Your task to perform on an android device: Open eBay Image 0: 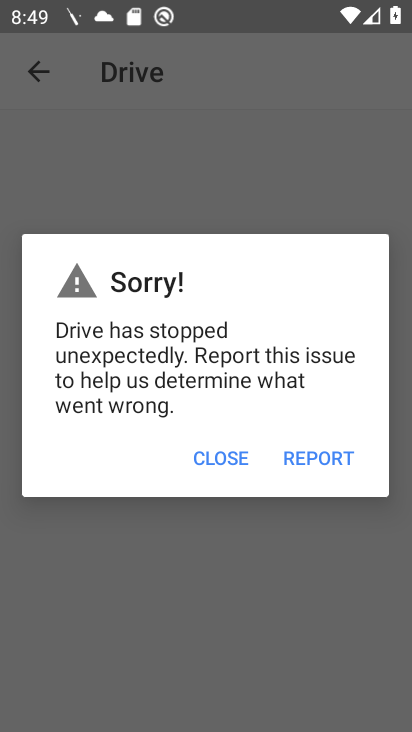
Step 0: press home button
Your task to perform on an android device: Open eBay Image 1: 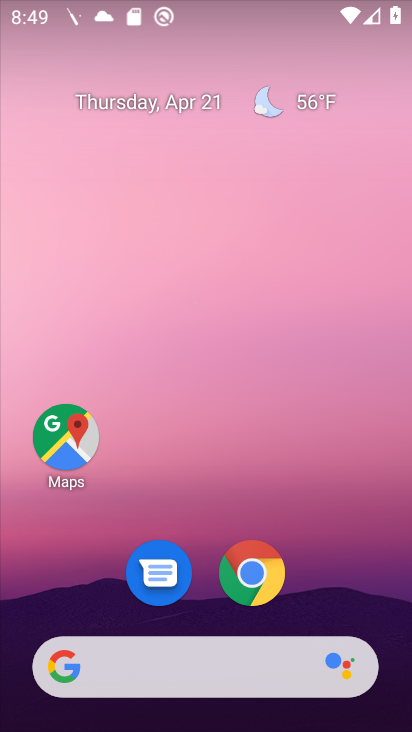
Step 1: click (252, 572)
Your task to perform on an android device: Open eBay Image 2: 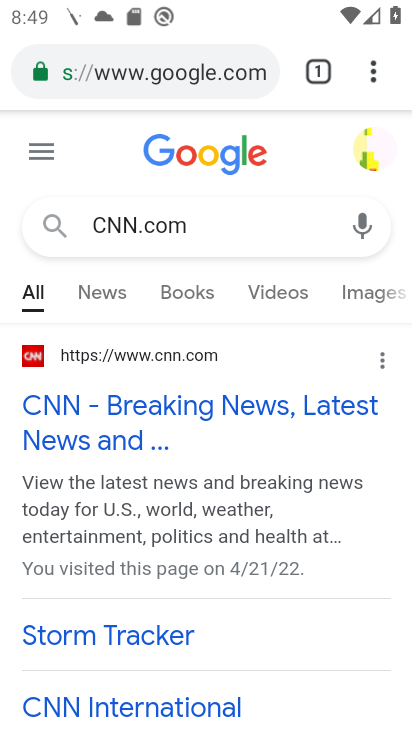
Step 2: click (257, 75)
Your task to perform on an android device: Open eBay Image 3: 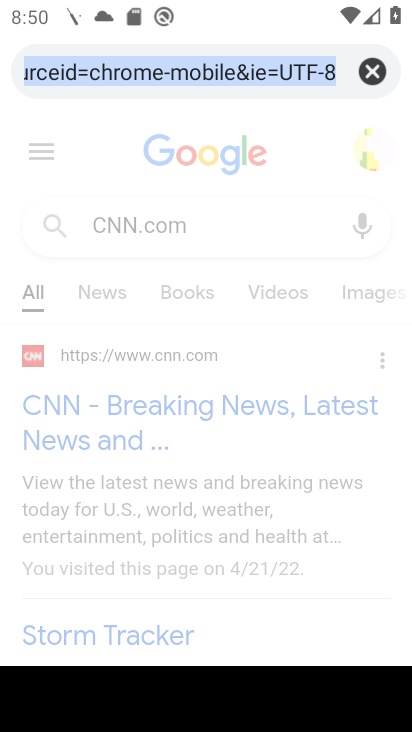
Step 3: click (278, 69)
Your task to perform on an android device: Open eBay Image 4: 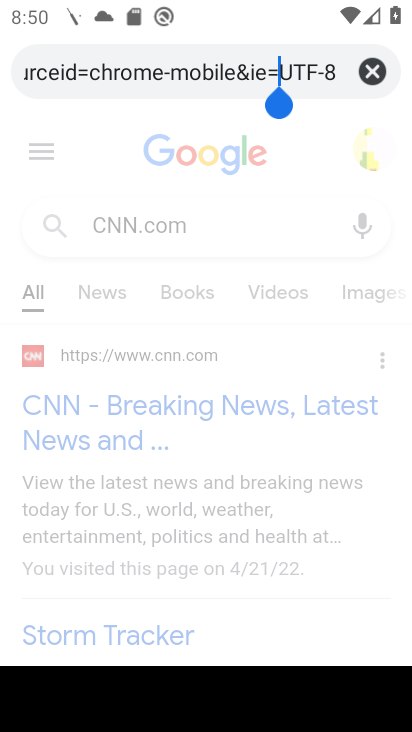
Step 4: click (367, 71)
Your task to perform on an android device: Open eBay Image 5: 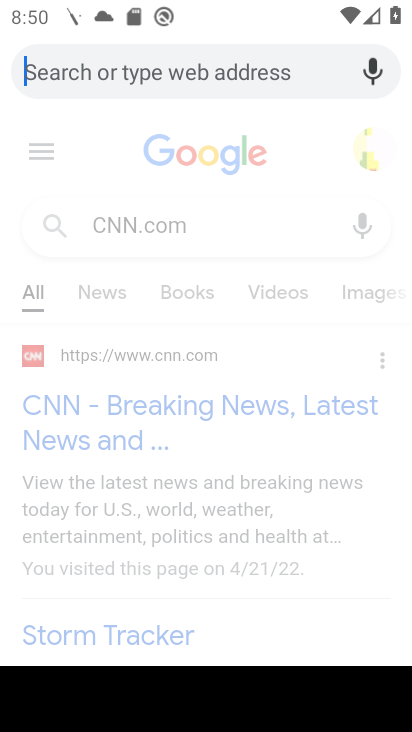
Step 5: click (316, 79)
Your task to perform on an android device: Open eBay Image 6: 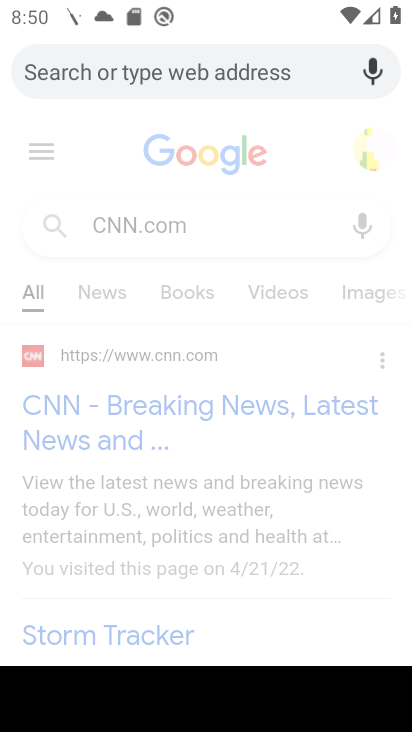
Step 6: type "eBay"
Your task to perform on an android device: Open eBay Image 7: 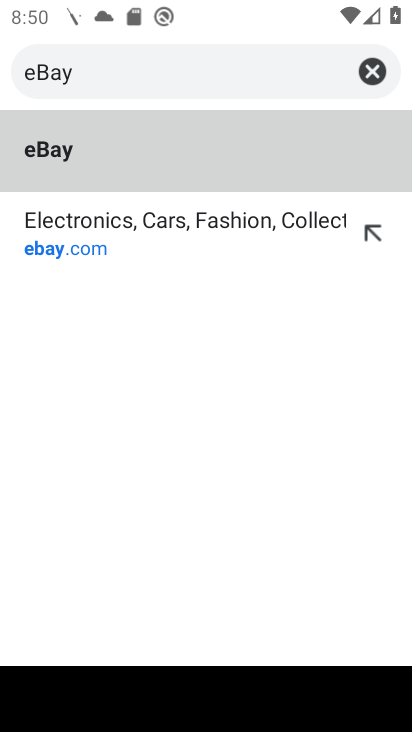
Step 7: click (120, 135)
Your task to perform on an android device: Open eBay Image 8: 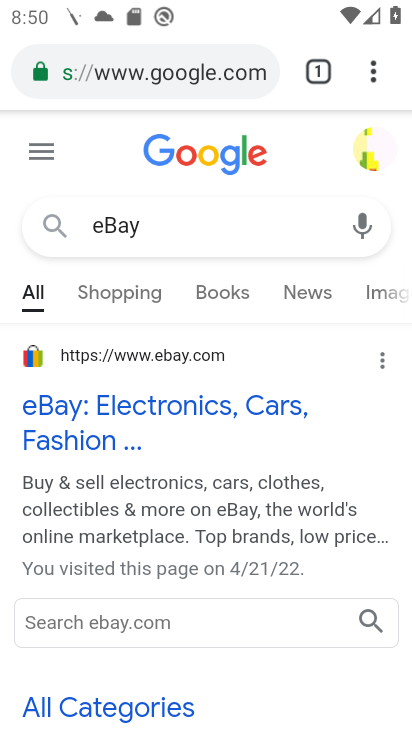
Step 8: drag from (216, 450) to (245, 339)
Your task to perform on an android device: Open eBay Image 9: 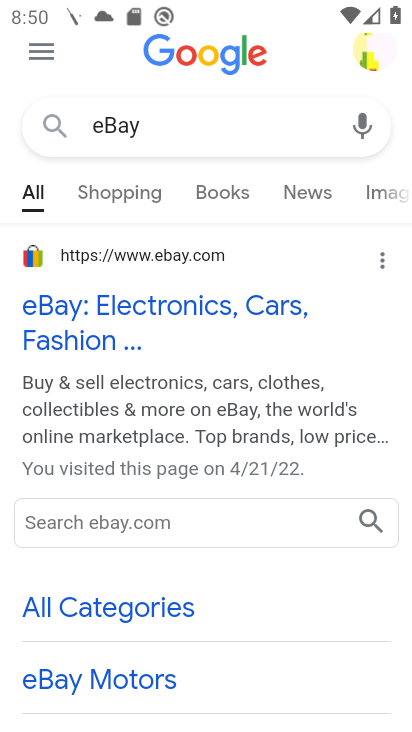
Step 9: click (166, 306)
Your task to perform on an android device: Open eBay Image 10: 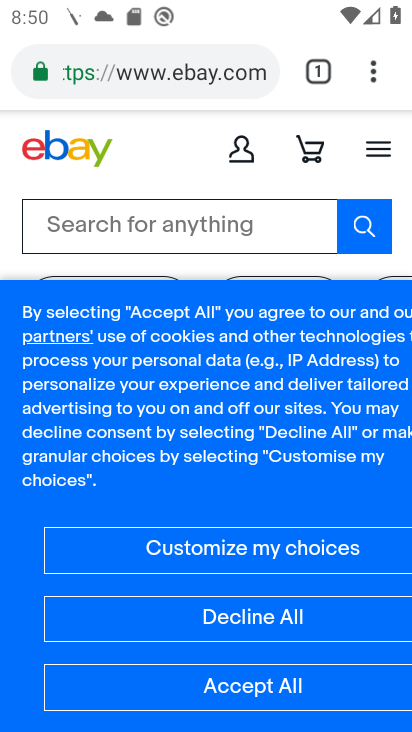
Step 10: task complete